Your task to perform on an android device: What's the weather going to be tomorrow? Image 0: 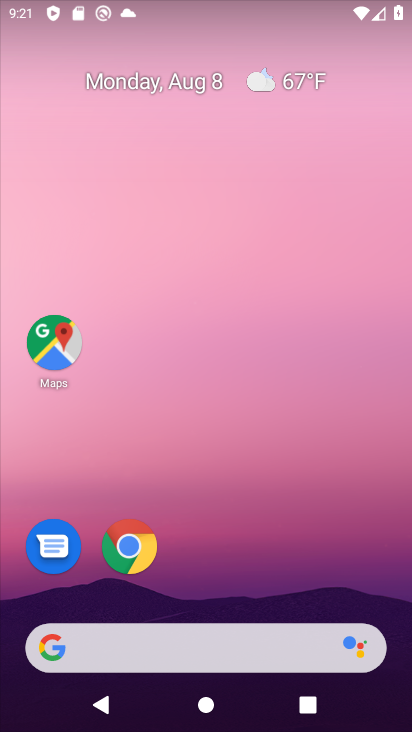
Step 0: click (211, 664)
Your task to perform on an android device: What's the weather going to be tomorrow? Image 1: 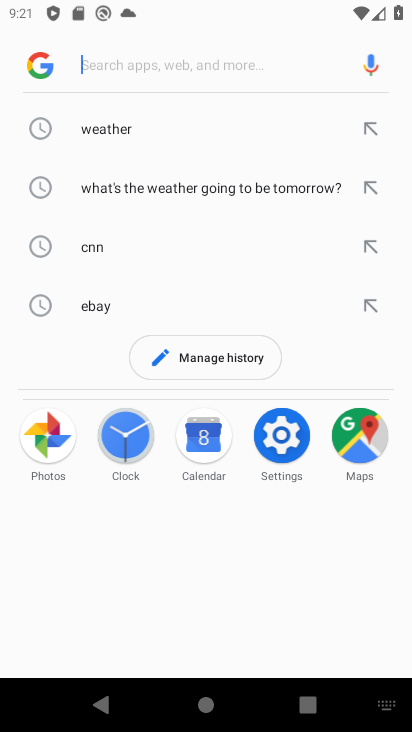
Step 1: type "What's the weather going to be tomorrow?"
Your task to perform on an android device: What's the weather going to be tomorrow? Image 2: 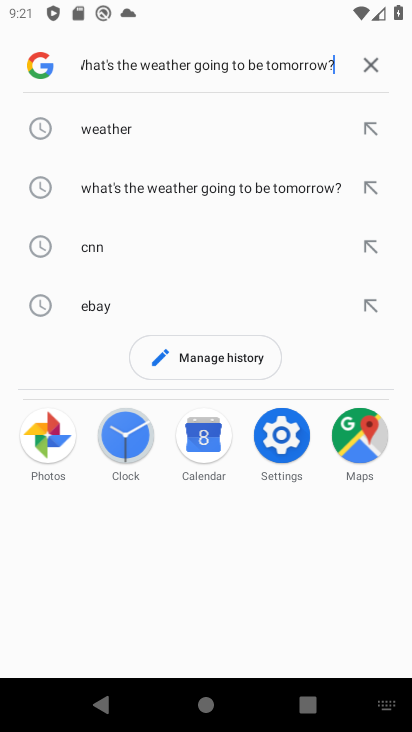
Step 2: press enter
Your task to perform on an android device: What's the weather going to be tomorrow? Image 3: 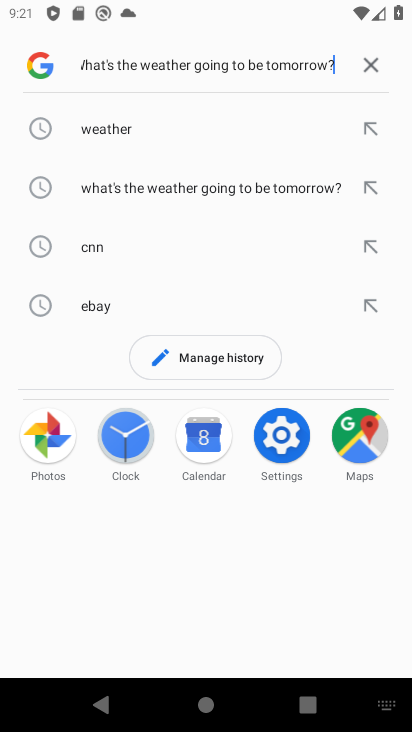
Step 3: type ""
Your task to perform on an android device: What's the weather going to be tomorrow? Image 4: 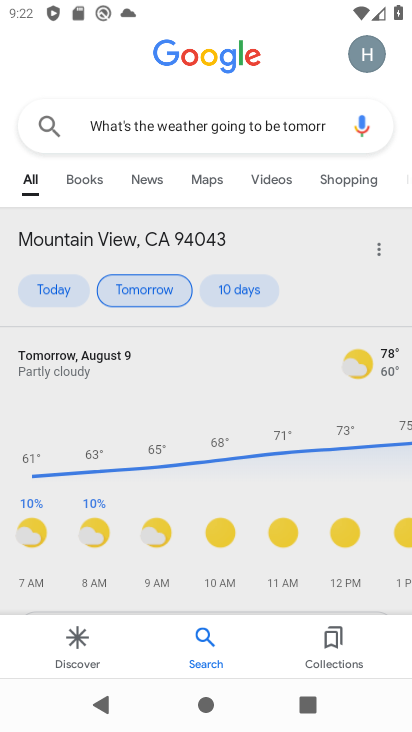
Step 4: task complete